Your task to perform on an android device: turn off data saver in the chrome app Image 0: 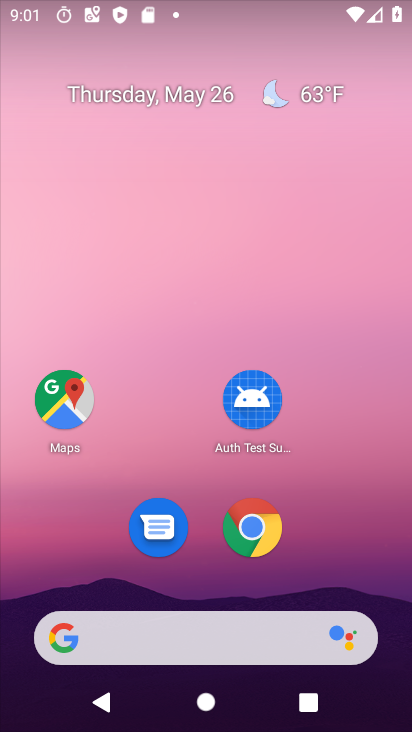
Step 0: drag from (336, 498) to (381, 11)
Your task to perform on an android device: turn off data saver in the chrome app Image 1: 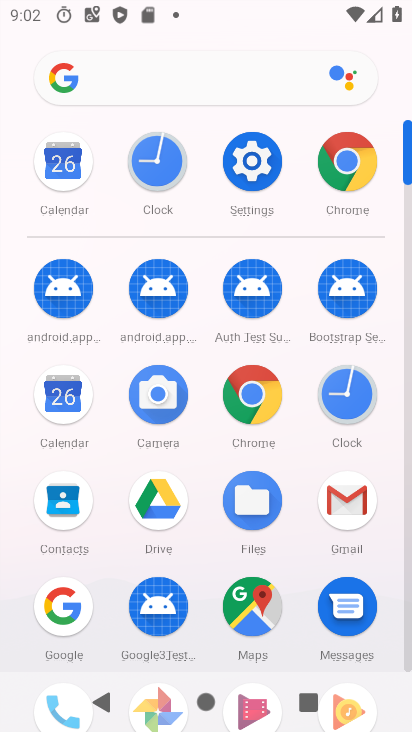
Step 1: click (348, 187)
Your task to perform on an android device: turn off data saver in the chrome app Image 2: 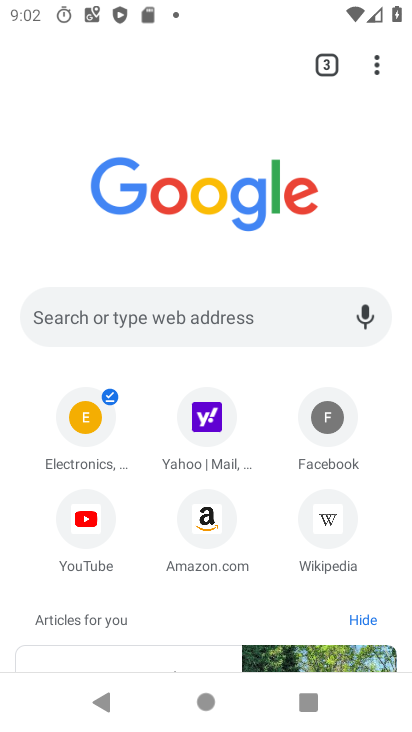
Step 2: drag from (371, 61) to (150, 553)
Your task to perform on an android device: turn off data saver in the chrome app Image 3: 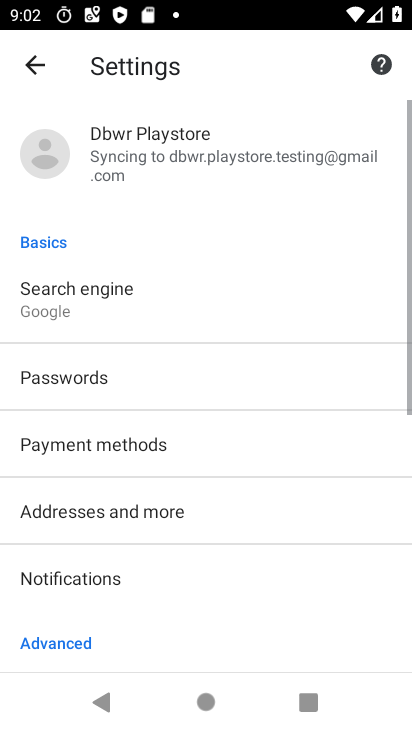
Step 3: drag from (132, 512) to (221, 108)
Your task to perform on an android device: turn off data saver in the chrome app Image 4: 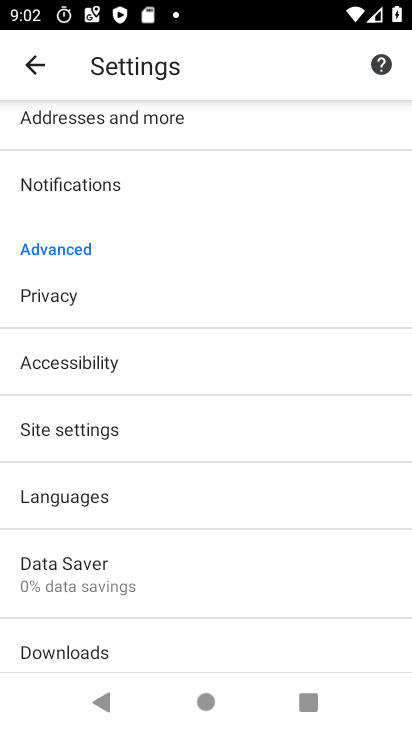
Step 4: click (109, 600)
Your task to perform on an android device: turn off data saver in the chrome app Image 5: 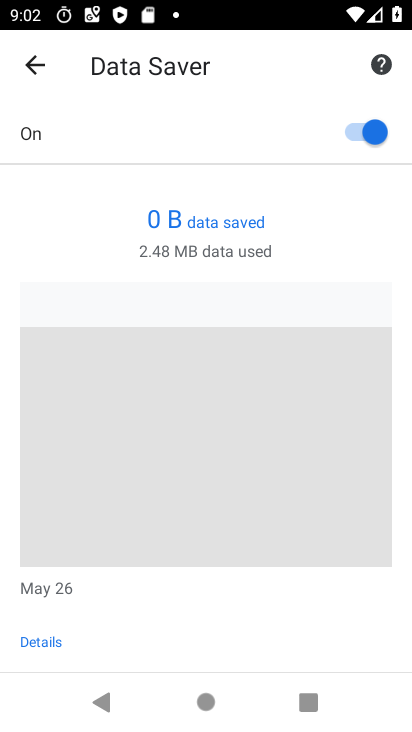
Step 5: click (339, 140)
Your task to perform on an android device: turn off data saver in the chrome app Image 6: 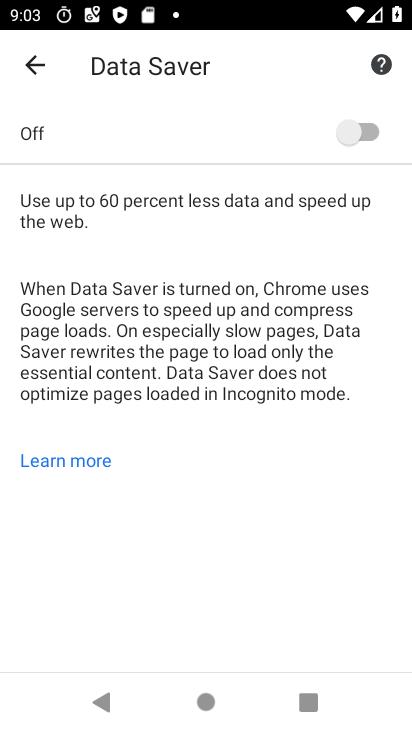
Step 6: task complete